Your task to perform on an android device: Go to display settings Image 0: 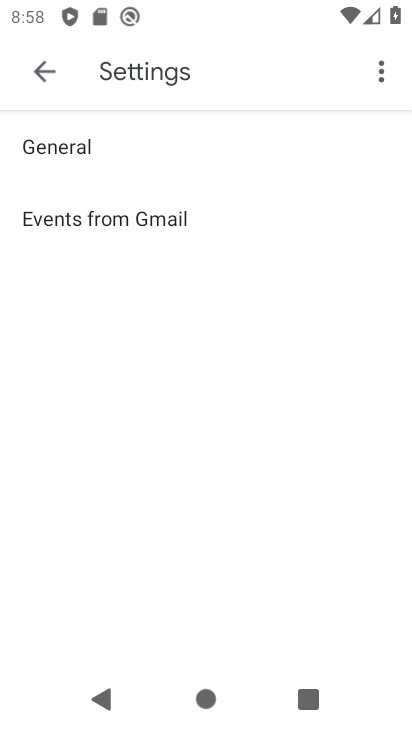
Step 0: press back button
Your task to perform on an android device: Go to display settings Image 1: 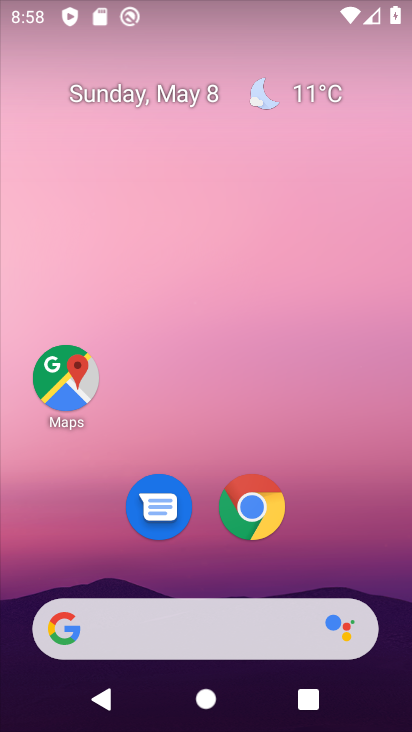
Step 1: drag from (309, 606) to (411, 168)
Your task to perform on an android device: Go to display settings Image 2: 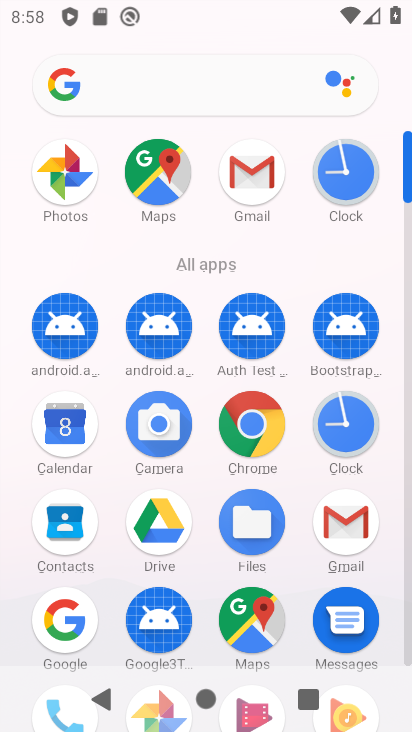
Step 2: drag from (388, 662) to (325, 449)
Your task to perform on an android device: Go to display settings Image 3: 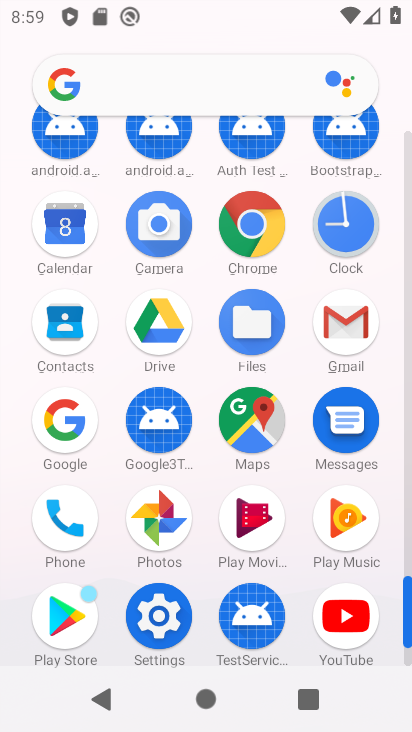
Step 3: click (158, 624)
Your task to perform on an android device: Go to display settings Image 4: 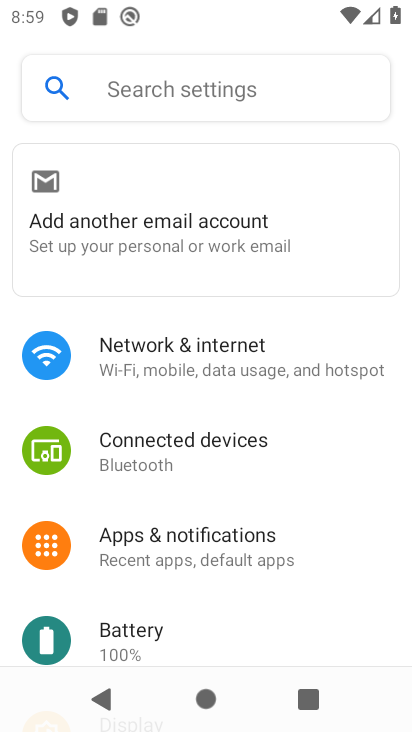
Step 4: drag from (158, 624) to (229, 424)
Your task to perform on an android device: Go to display settings Image 5: 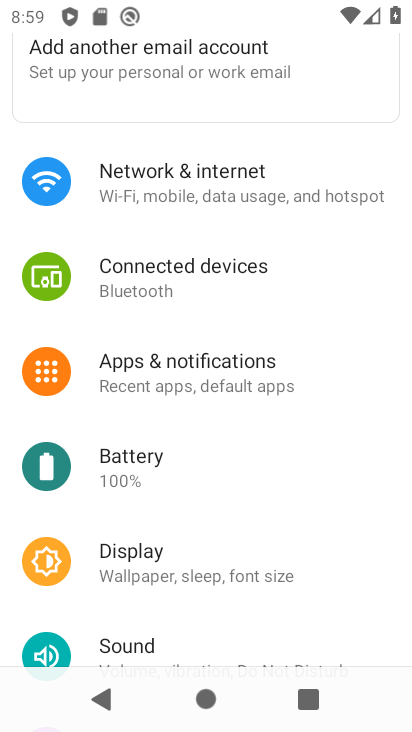
Step 5: click (197, 560)
Your task to perform on an android device: Go to display settings Image 6: 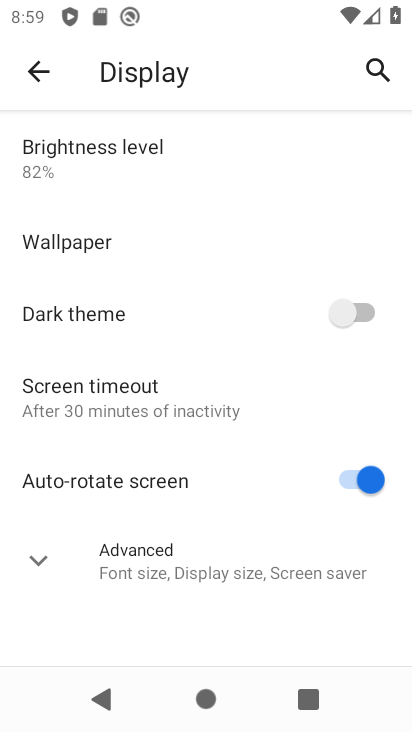
Step 6: click (197, 560)
Your task to perform on an android device: Go to display settings Image 7: 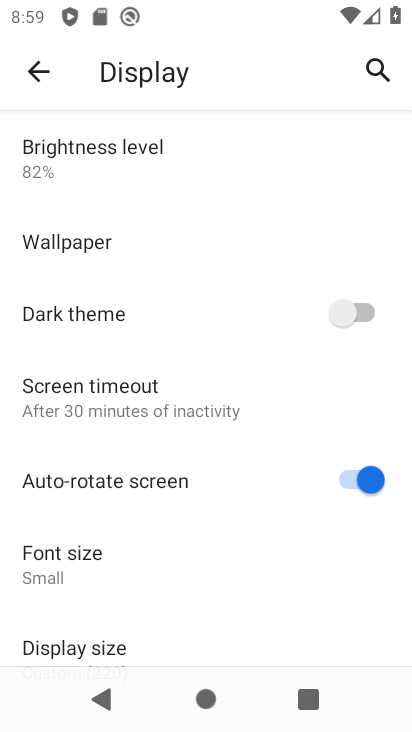
Step 7: task complete